Your task to perform on an android device: toggle sleep mode Image 0: 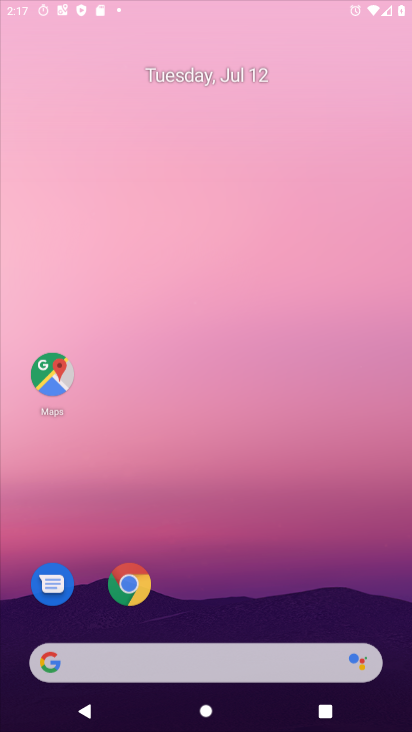
Step 0: drag from (345, 151) to (264, 29)
Your task to perform on an android device: toggle sleep mode Image 1: 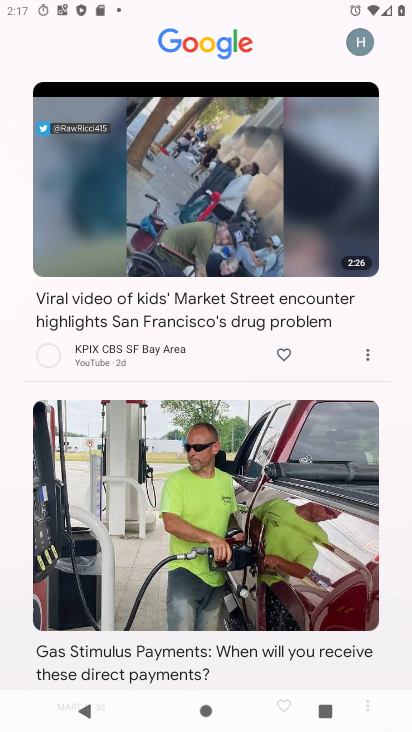
Step 1: drag from (207, 590) to (194, 115)
Your task to perform on an android device: toggle sleep mode Image 2: 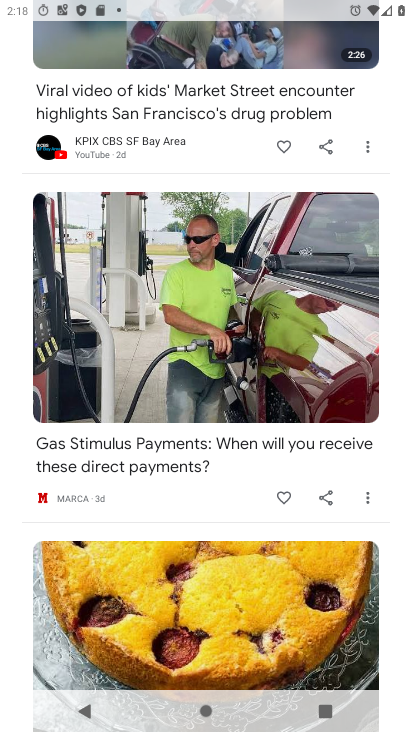
Step 2: press home button
Your task to perform on an android device: toggle sleep mode Image 3: 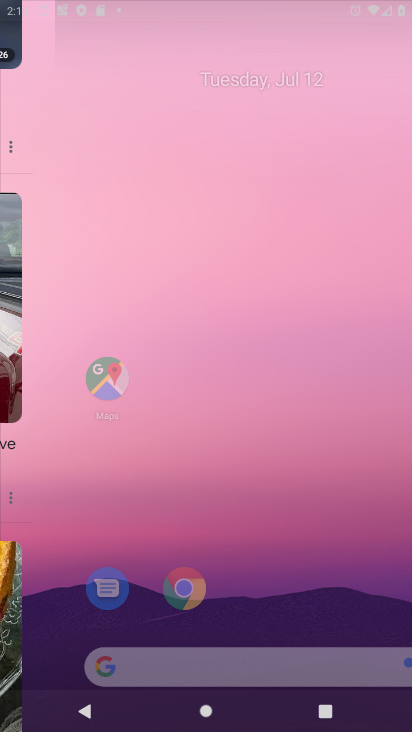
Step 3: drag from (166, 638) to (218, 115)
Your task to perform on an android device: toggle sleep mode Image 4: 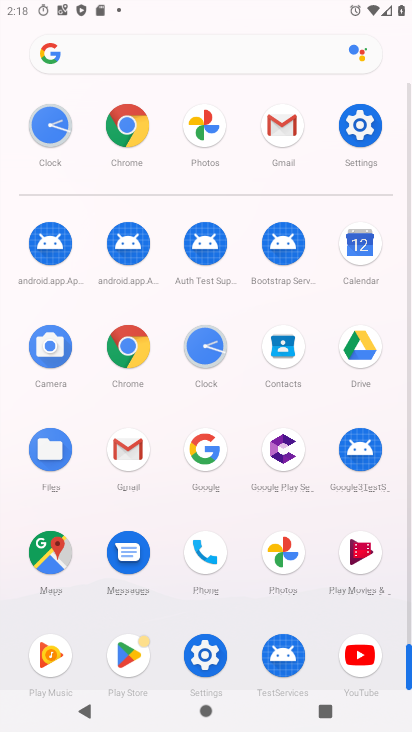
Step 4: click (198, 652)
Your task to perform on an android device: toggle sleep mode Image 5: 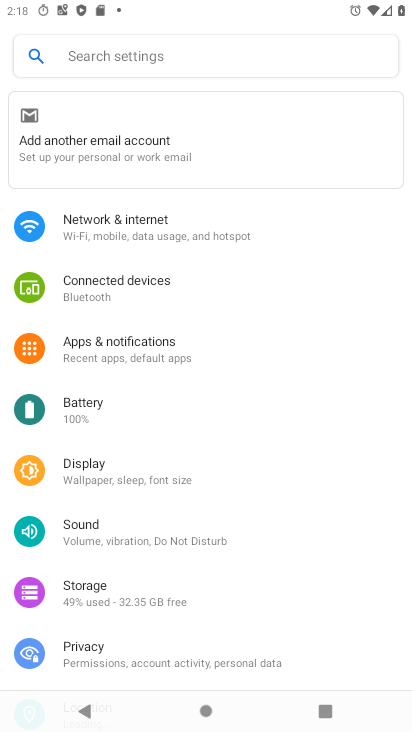
Step 5: drag from (192, 599) to (229, 128)
Your task to perform on an android device: toggle sleep mode Image 6: 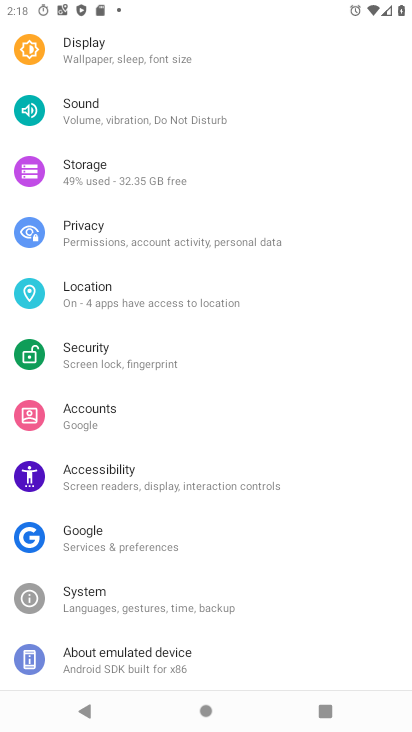
Step 6: click (183, 54)
Your task to perform on an android device: toggle sleep mode Image 7: 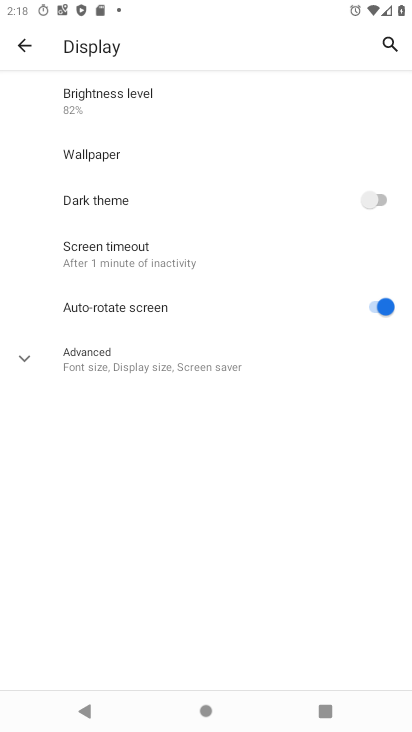
Step 7: click (195, 257)
Your task to perform on an android device: toggle sleep mode Image 8: 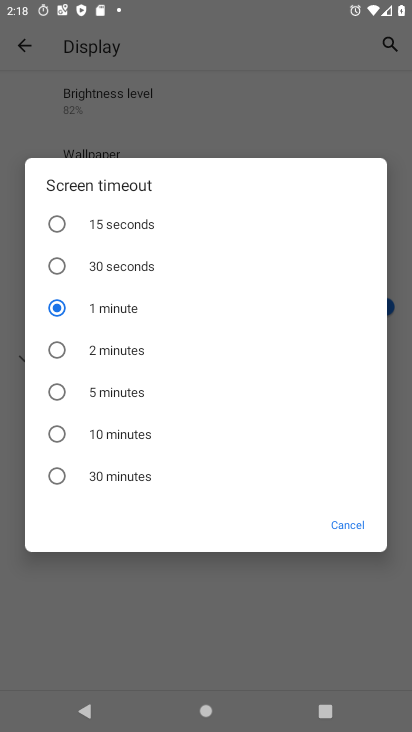
Step 8: click (83, 230)
Your task to perform on an android device: toggle sleep mode Image 9: 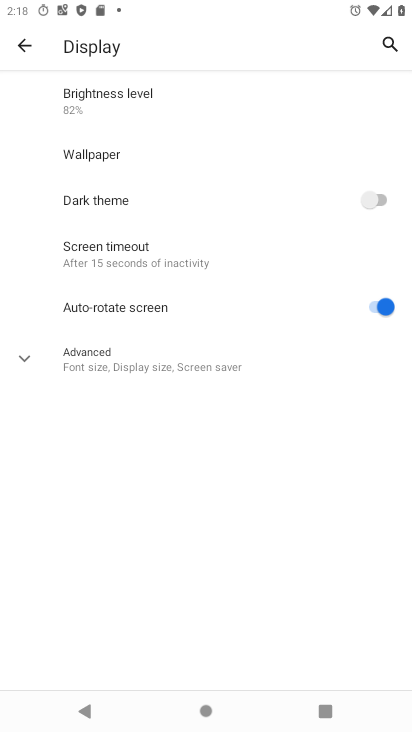
Step 9: click (181, 253)
Your task to perform on an android device: toggle sleep mode Image 10: 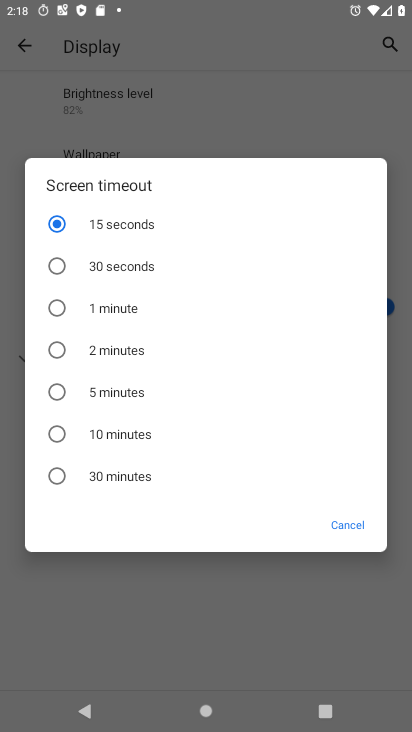
Step 10: task complete